Your task to perform on an android device: find snoozed emails in the gmail app Image 0: 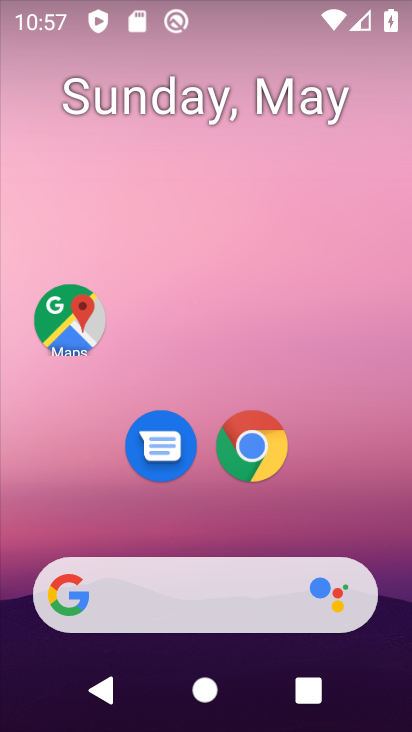
Step 0: drag from (205, 486) to (263, 103)
Your task to perform on an android device: find snoozed emails in the gmail app Image 1: 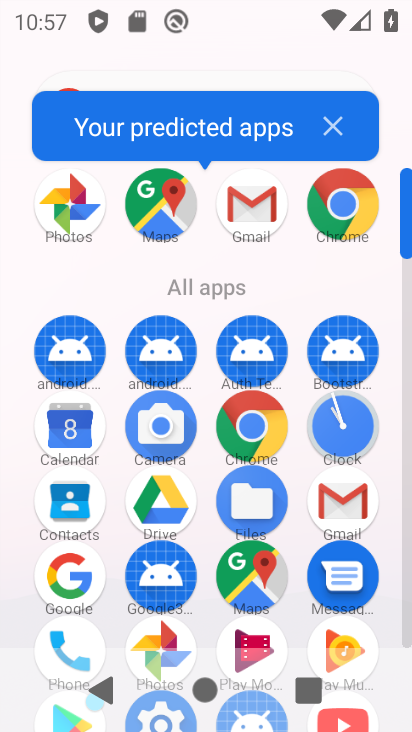
Step 1: click (248, 195)
Your task to perform on an android device: find snoozed emails in the gmail app Image 2: 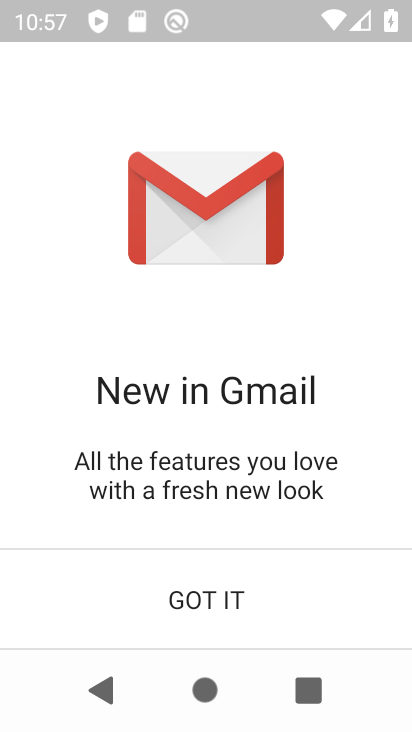
Step 2: click (219, 598)
Your task to perform on an android device: find snoozed emails in the gmail app Image 3: 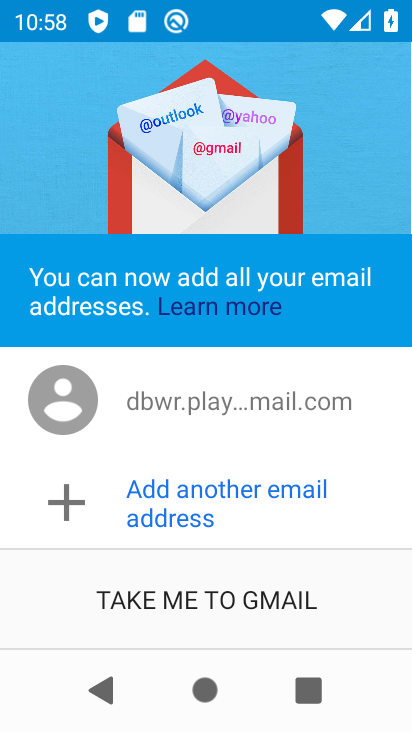
Step 3: click (219, 598)
Your task to perform on an android device: find snoozed emails in the gmail app Image 4: 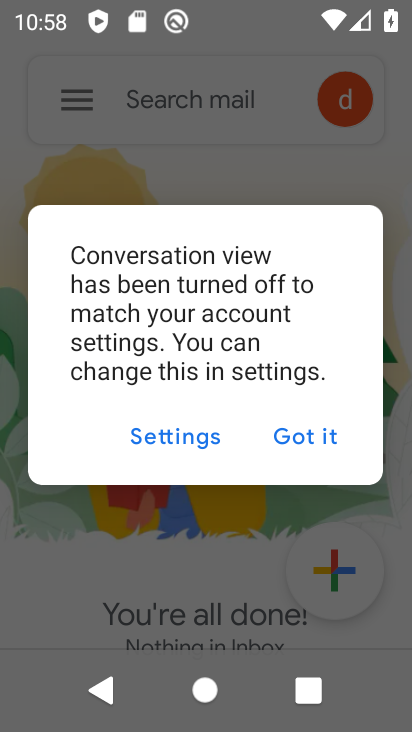
Step 4: click (319, 447)
Your task to perform on an android device: find snoozed emails in the gmail app Image 5: 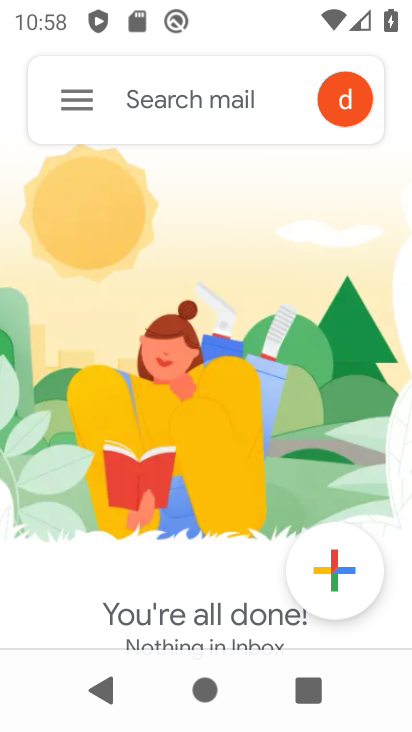
Step 5: click (76, 119)
Your task to perform on an android device: find snoozed emails in the gmail app Image 6: 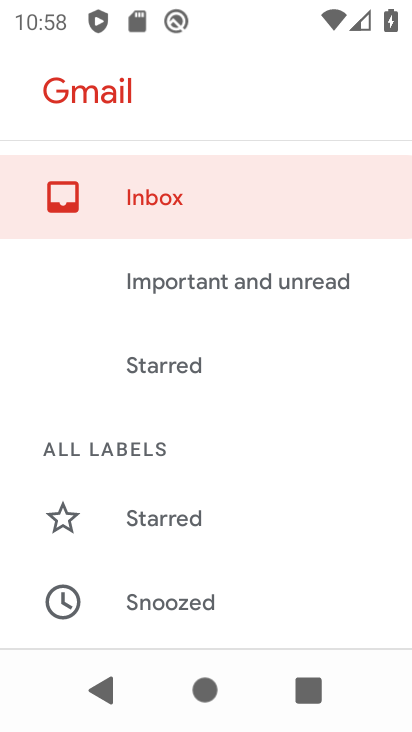
Step 6: click (201, 601)
Your task to perform on an android device: find snoozed emails in the gmail app Image 7: 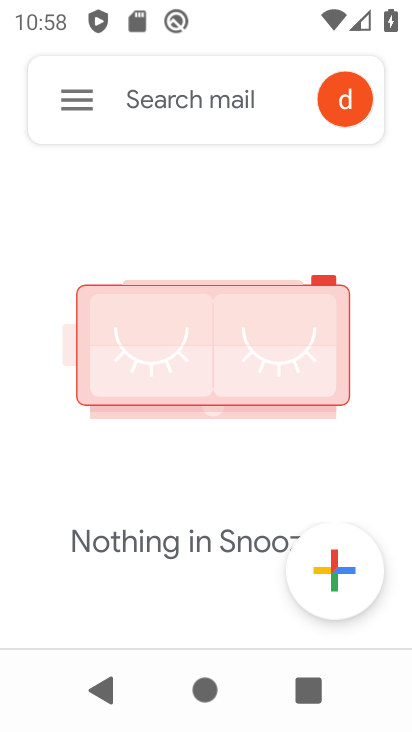
Step 7: task complete